Your task to perform on an android device: add a contact Image 0: 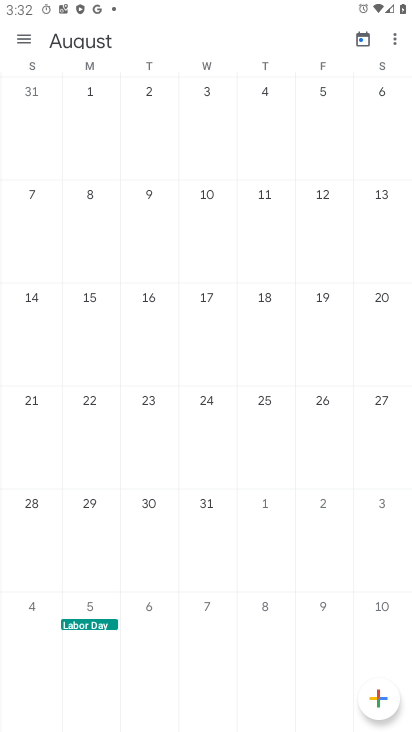
Step 0: press home button
Your task to perform on an android device: add a contact Image 1: 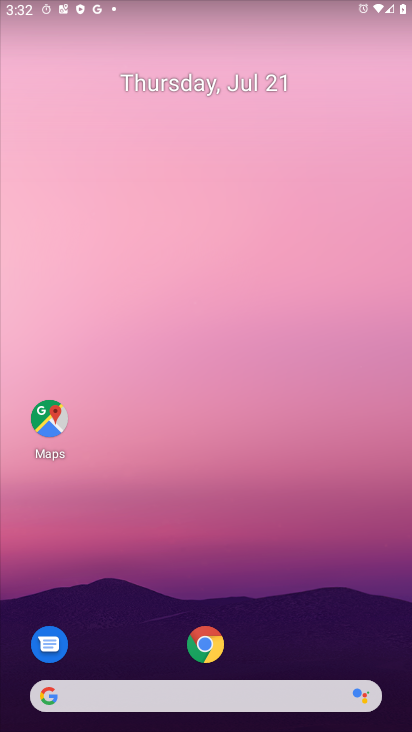
Step 1: drag from (319, 621) to (313, 176)
Your task to perform on an android device: add a contact Image 2: 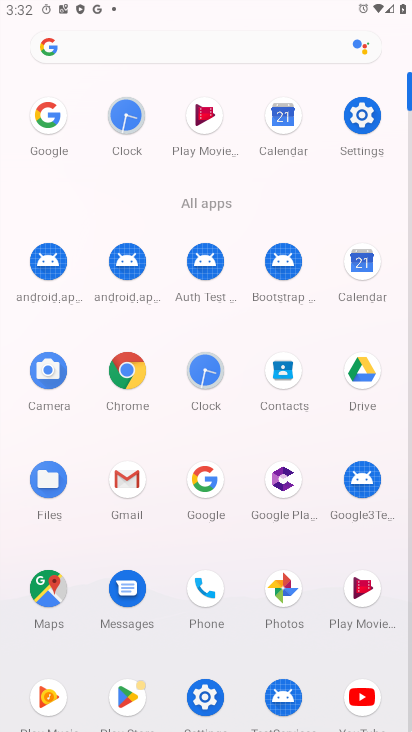
Step 2: click (272, 374)
Your task to perform on an android device: add a contact Image 3: 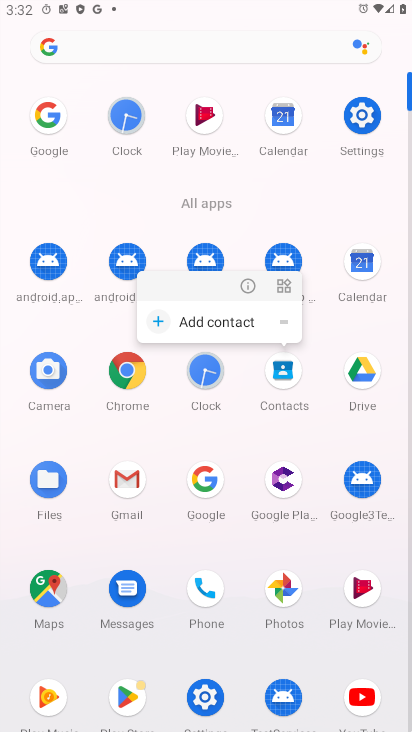
Step 3: click (284, 379)
Your task to perform on an android device: add a contact Image 4: 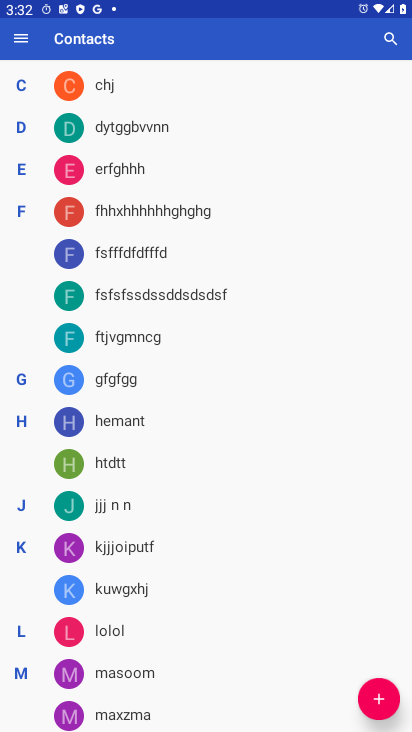
Step 4: click (377, 700)
Your task to perform on an android device: add a contact Image 5: 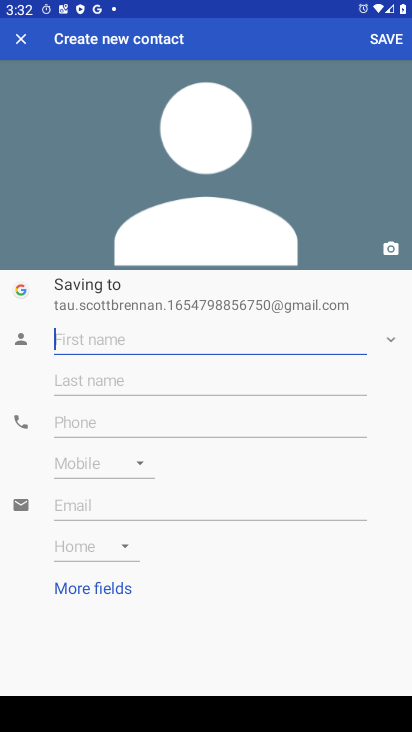
Step 5: type "dgssggsggg"
Your task to perform on an android device: add a contact Image 6: 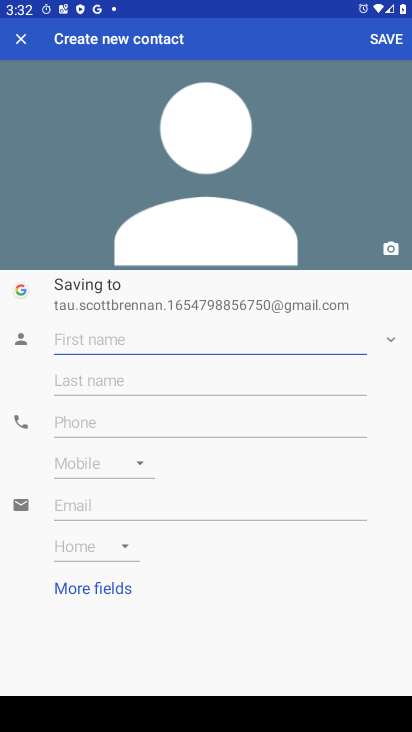
Step 6: click (78, 336)
Your task to perform on an android device: add a contact Image 7: 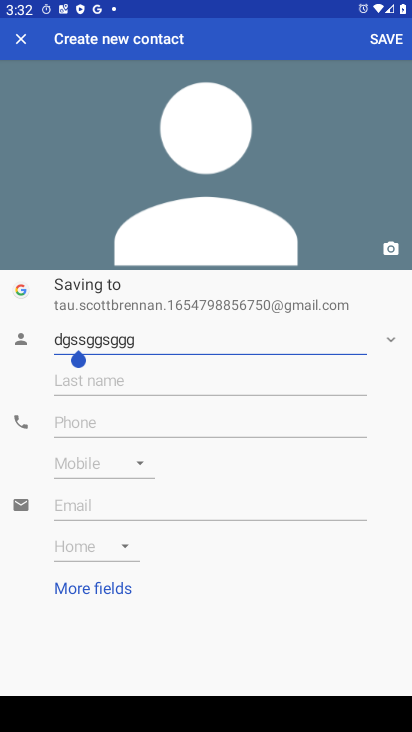
Step 7: click (96, 422)
Your task to perform on an android device: add a contact Image 8: 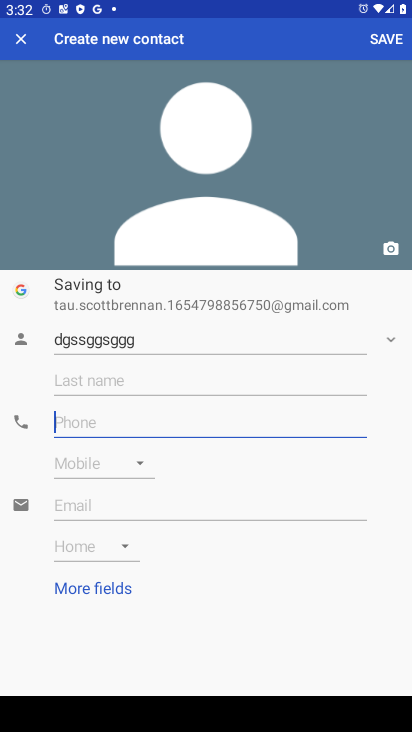
Step 8: type "433332555"
Your task to perform on an android device: add a contact Image 9: 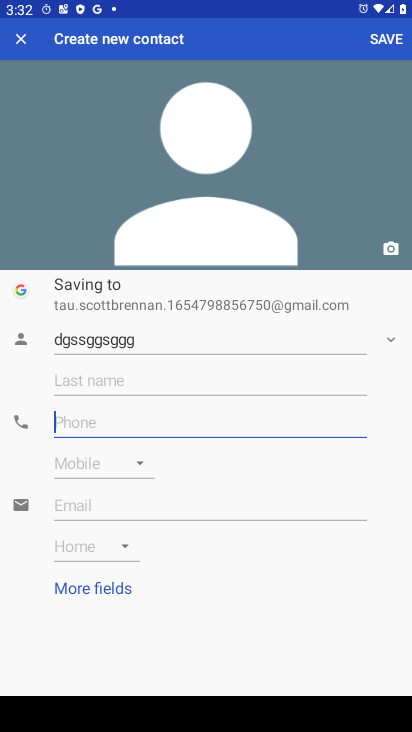
Step 9: click (95, 419)
Your task to perform on an android device: add a contact Image 10: 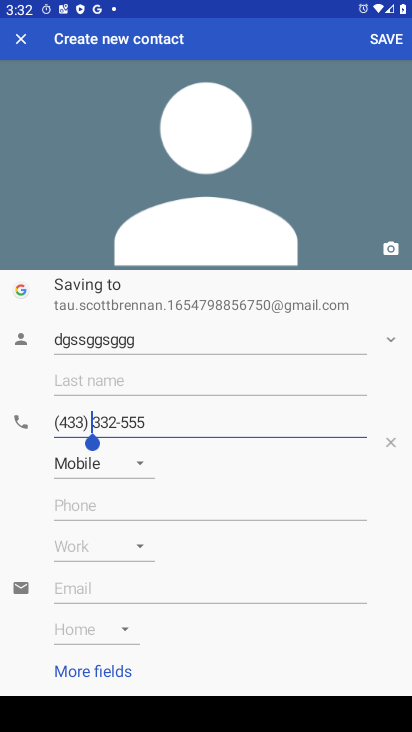
Step 10: click (388, 44)
Your task to perform on an android device: add a contact Image 11: 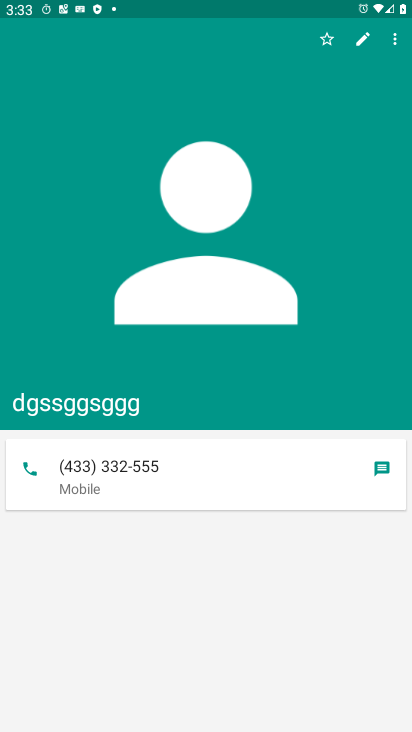
Step 11: task complete